Your task to perform on an android device: turn on translation in the chrome app Image 0: 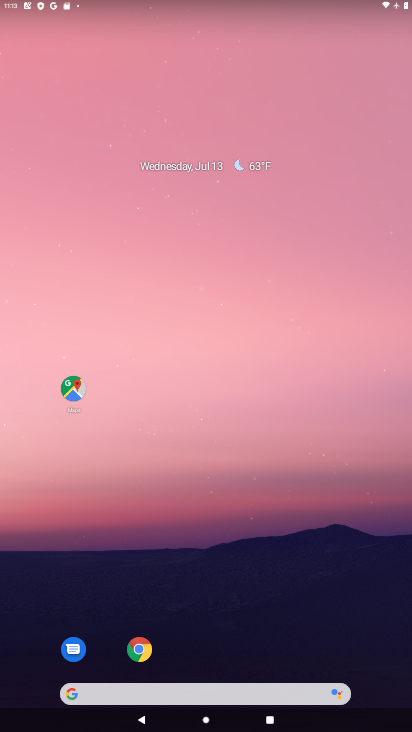
Step 0: drag from (207, 558) to (325, 28)
Your task to perform on an android device: turn on translation in the chrome app Image 1: 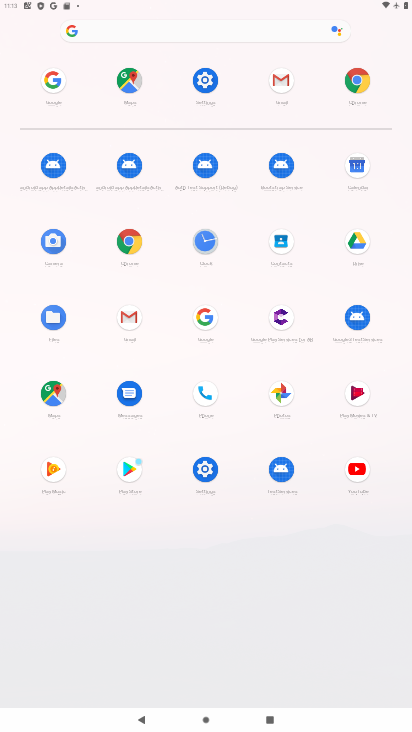
Step 1: click (360, 75)
Your task to perform on an android device: turn on translation in the chrome app Image 2: 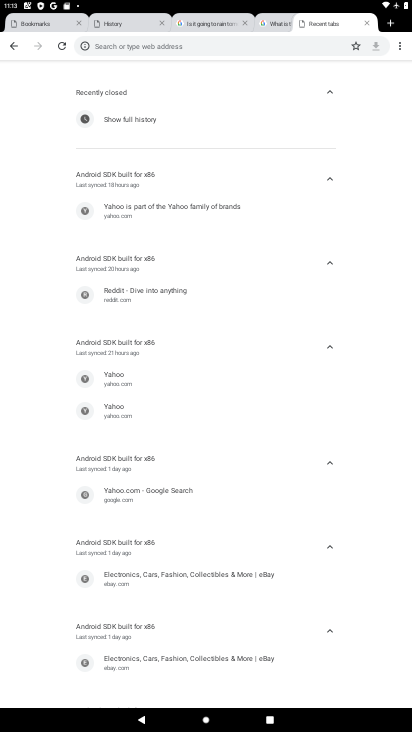
Step 2: click (405, 42)
Your task to perform on an android device: turn on translation in the chrome app Image 3: 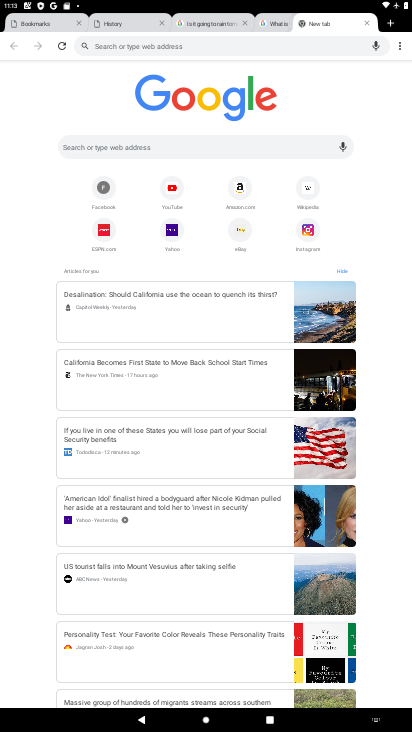
Step 3: click (398, 45)
Your task to perform on an android device: turn on translation in the chrome app Image 4: 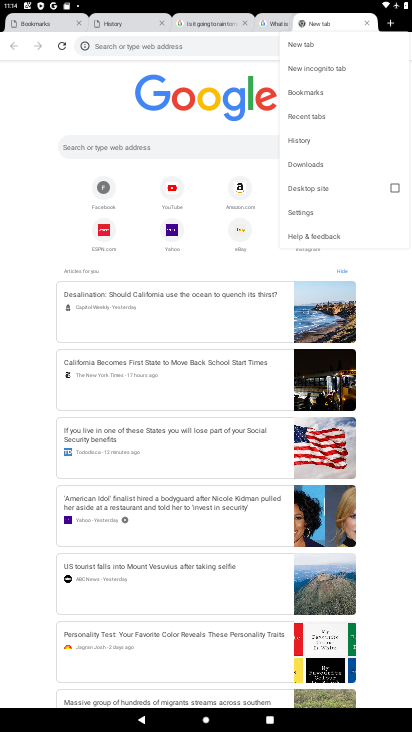
Step 4: click (314, 206)
Your task to perform on an android device: turn on translation in the chrome app Image 5: 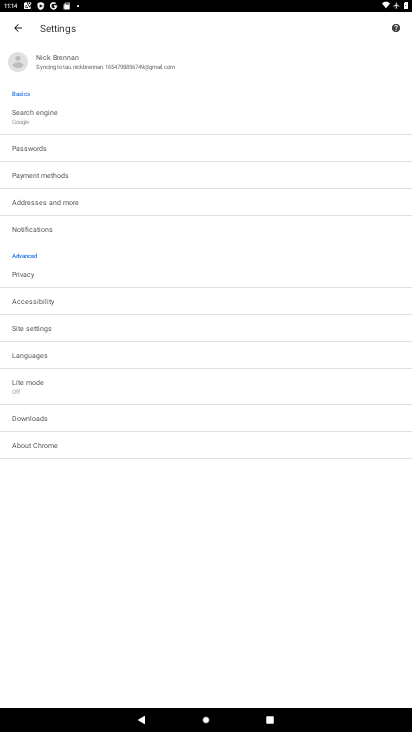
Step 5: click (59, 357)
Your task to perform on an android device: turn on translation in the chrome app Image 6: 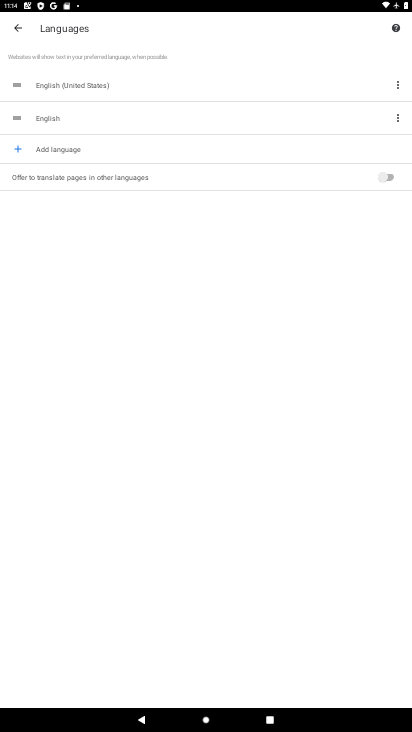
Step 6: click (386, 175)
Your task to perform on an android device: turn on translation in the chrome app Image 7: 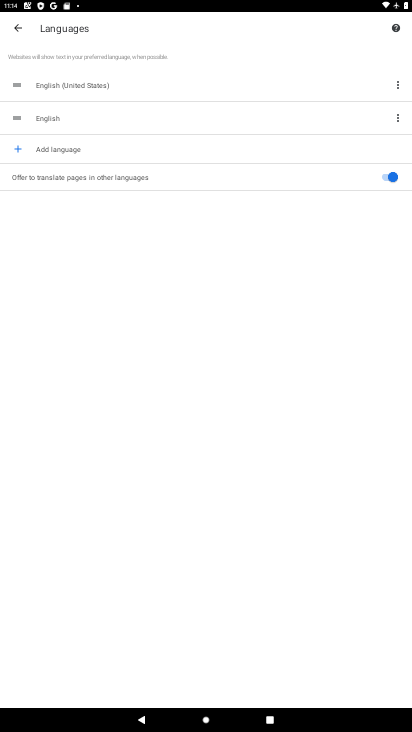
Step 7: task complete